Your task to perform on an android device: open app "Firefox Browser" (install if not already installed) Image 0: 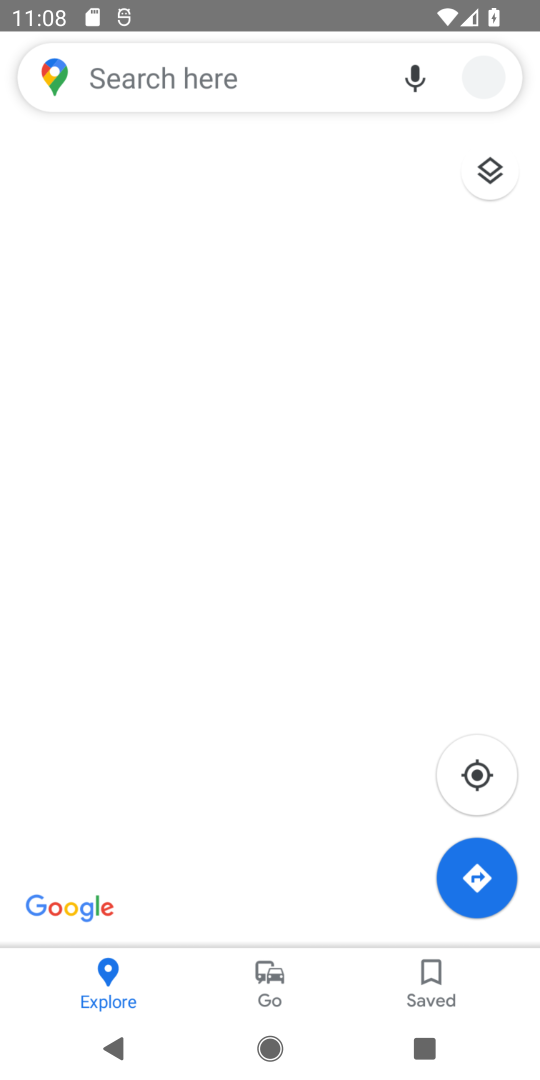
Step 0: press home button
Your task to perform on an android device: open app "Firefox Browser" (install if not already installed) Image 1: 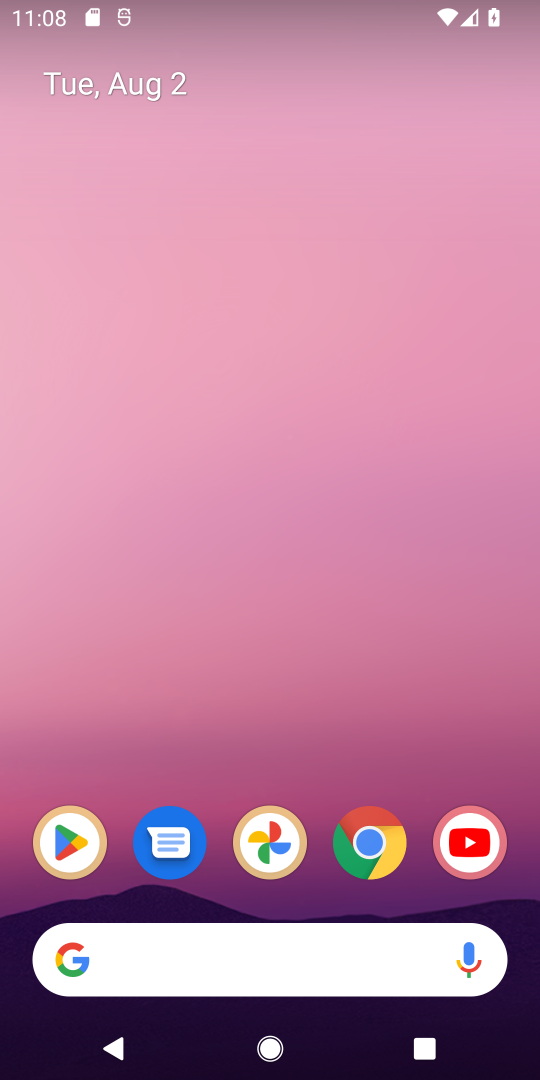
Step 1: click (80, 850)
Your task to perform on an android device: open app "Firefox Browser" (install if not already installed) Image 2: 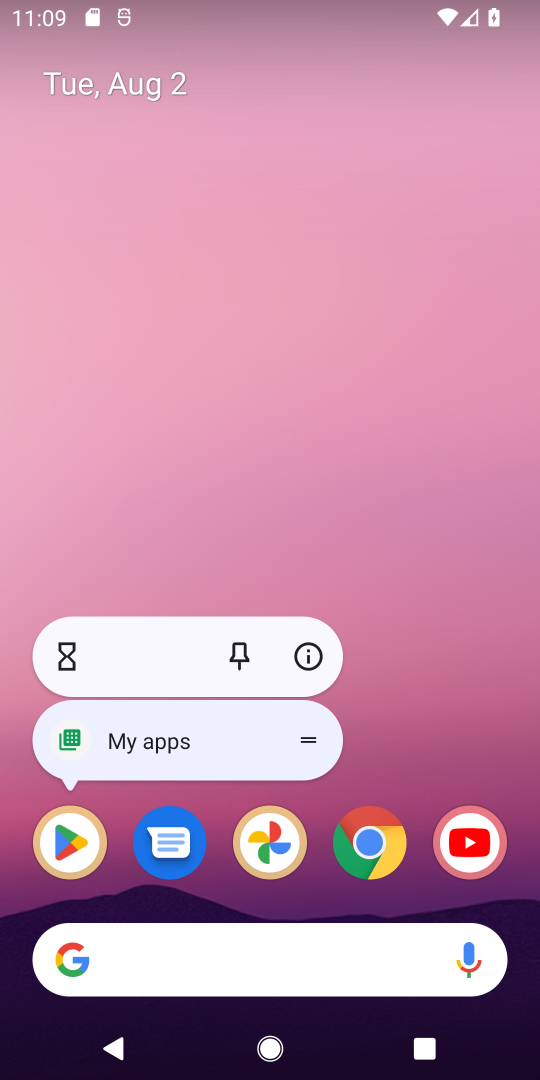
Step 2: click (64, 812)
Your task to perform on an android device: open app "Firefox Browser" (install if not already installed) Image 3: 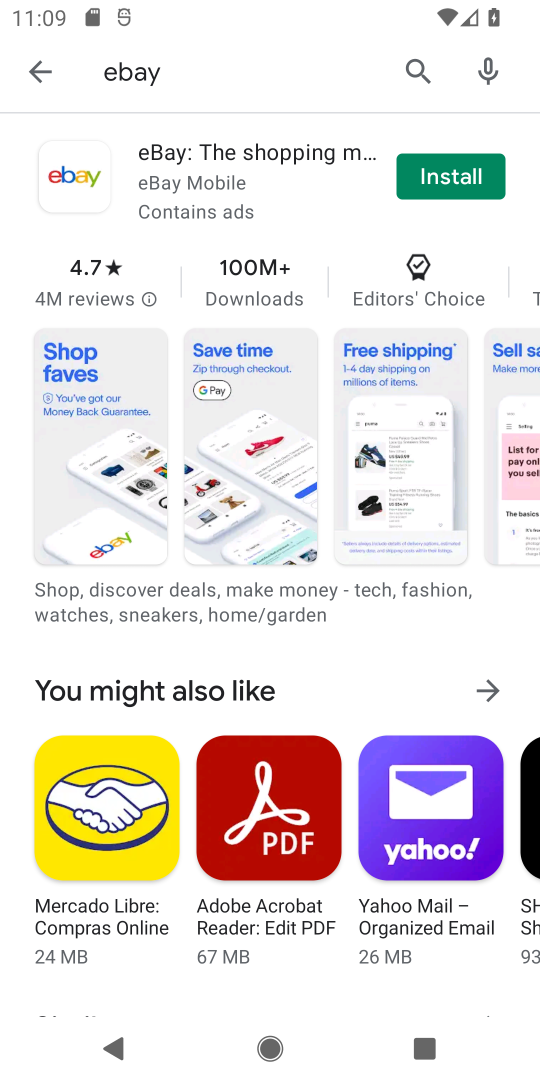
Step 3: click (432, 80)
Your task to perform on an android device: open app "Firefox Browser" (install if not already installed) Image 4: 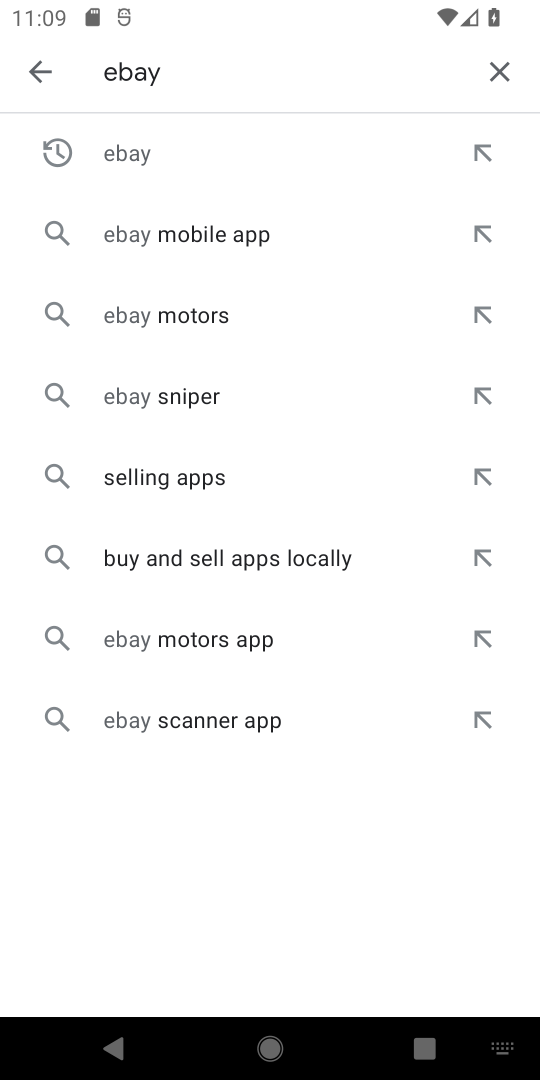
Step 4: click (490, 77)
Your task to perform on an android device: open app "Firefox Browser" (install if not already installed) Image 5: 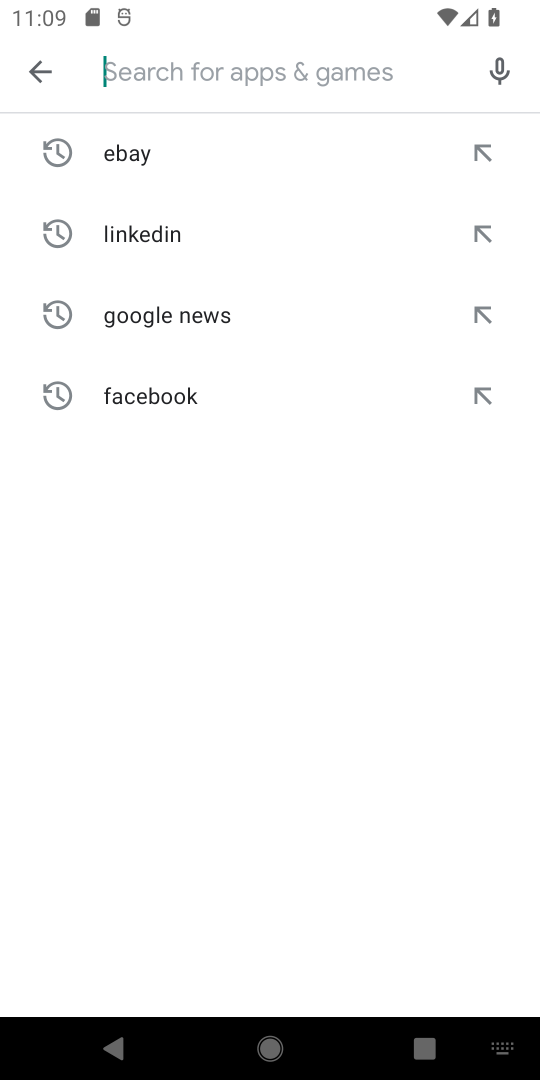
Step 5: type "Firefox Browser"
Your task to perform on an android device: open app "Firefox Browser" (install if not already installed) Image 6: 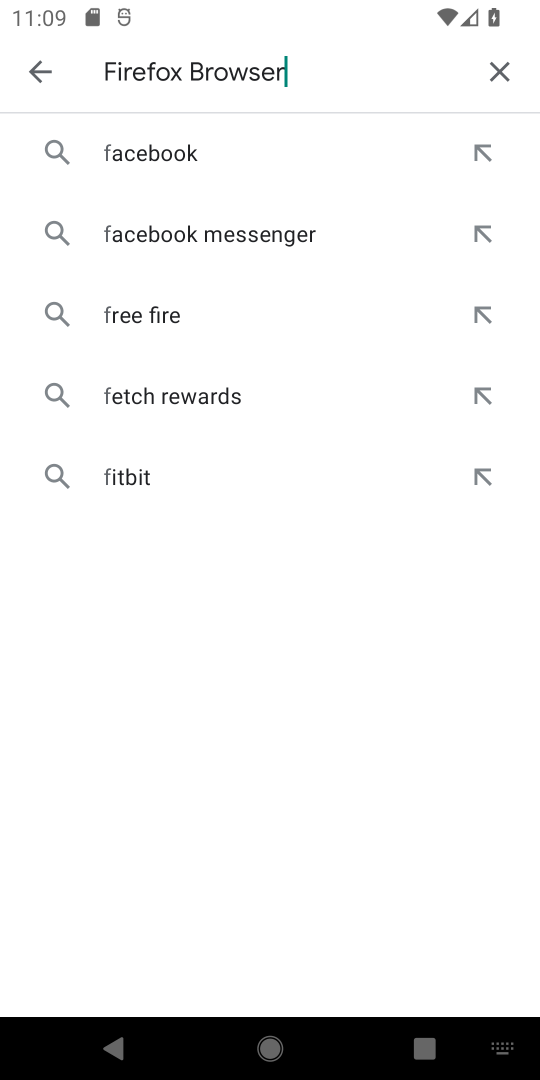
Step 6: type ""
Your task to perform on an android device: open app "Firefox Browser" (install if not already installed) Image 7: 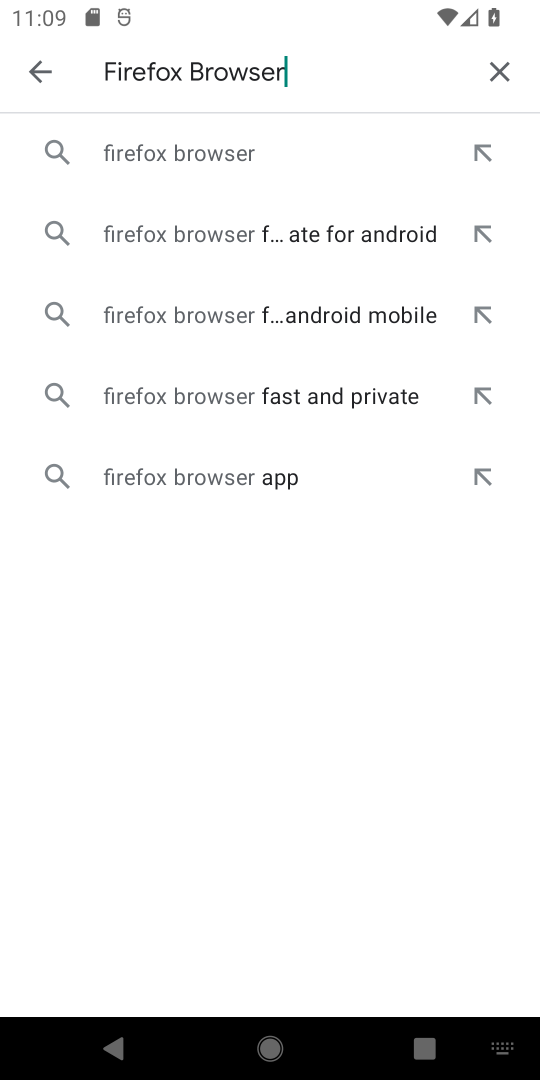
Step 7: click (114, 155)
Your task to perform on an android device: open app "Firefox Browser" (install if not already installed) Image 8: 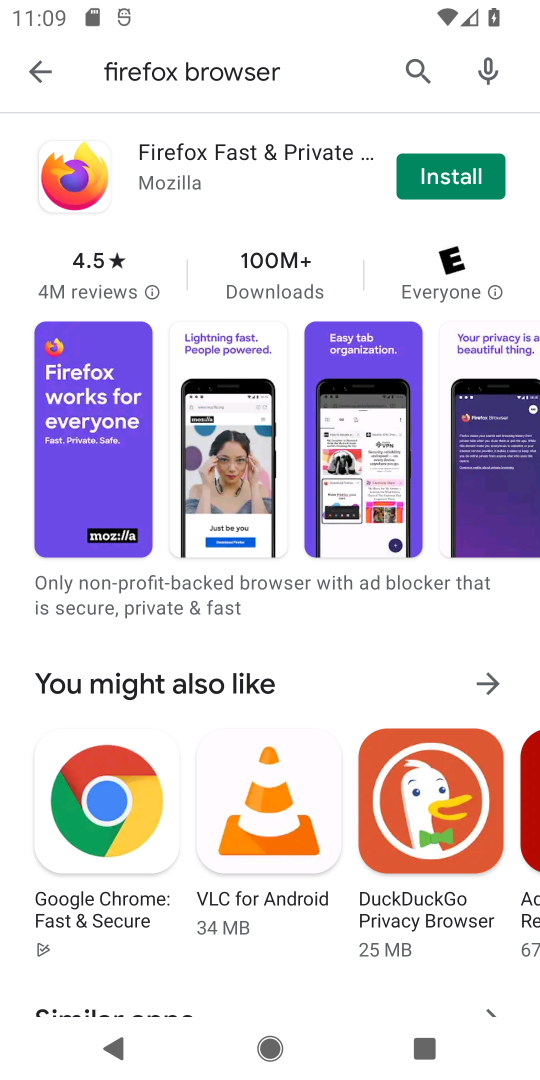
Step 8: click (476, 187)
Your task to perform on an android device: open app "Firefox Browser" (install if not already installed) Image 9: 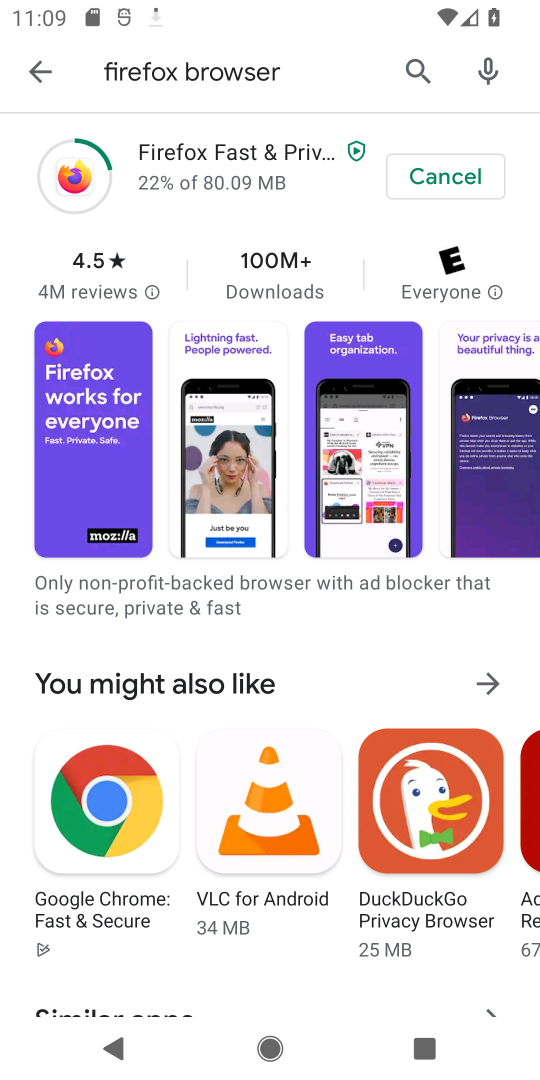
Step 9: click (305, 148)
Your task to perform on an android device: open app "Firefox Browser" (install if not already installed) Image 10: 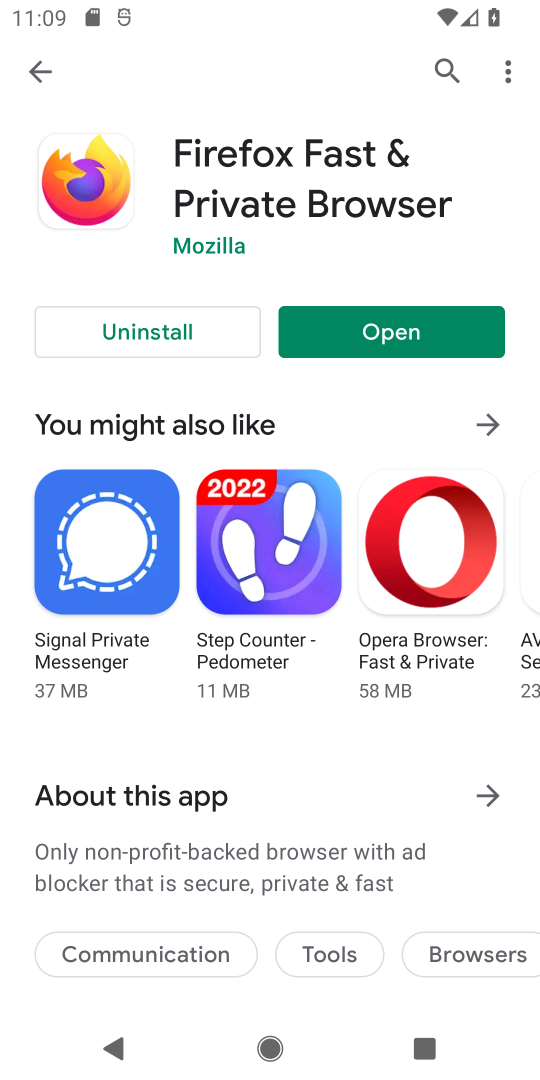
Step 10: click (408, 358)
Your task to perform on an android device: open app "Firefox Browser" (install if not already installed) Image 11: 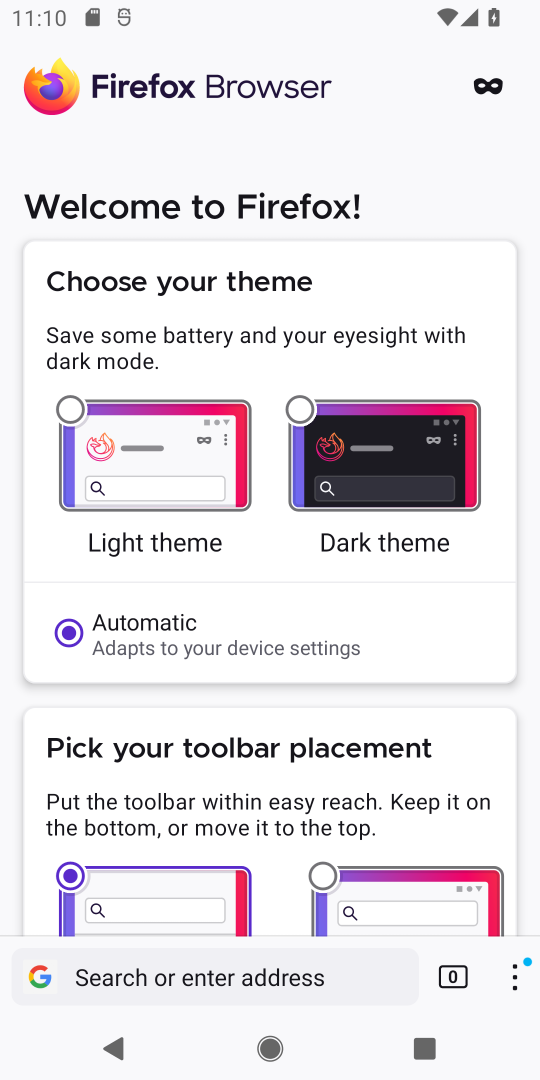
Step 11: drag from (306, 136) to (347, 1067)
Your task to perform on an android device: open app "Firefox Browser" (install if not already installed) Image 12: 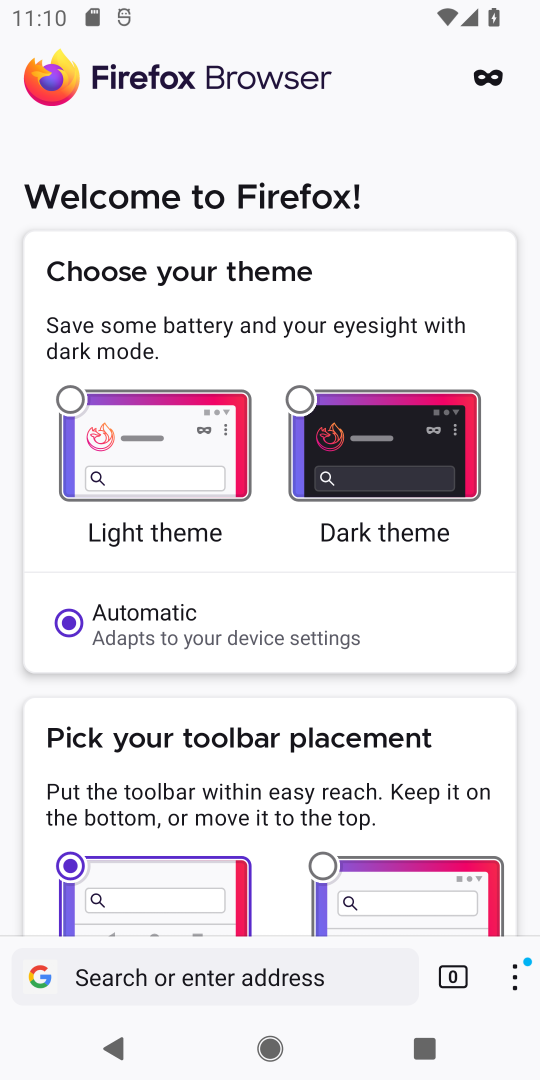
Step 12: press back button
Your task to perform on an android device: open app "Firefox Browser" (install if not already installed) Image 13: 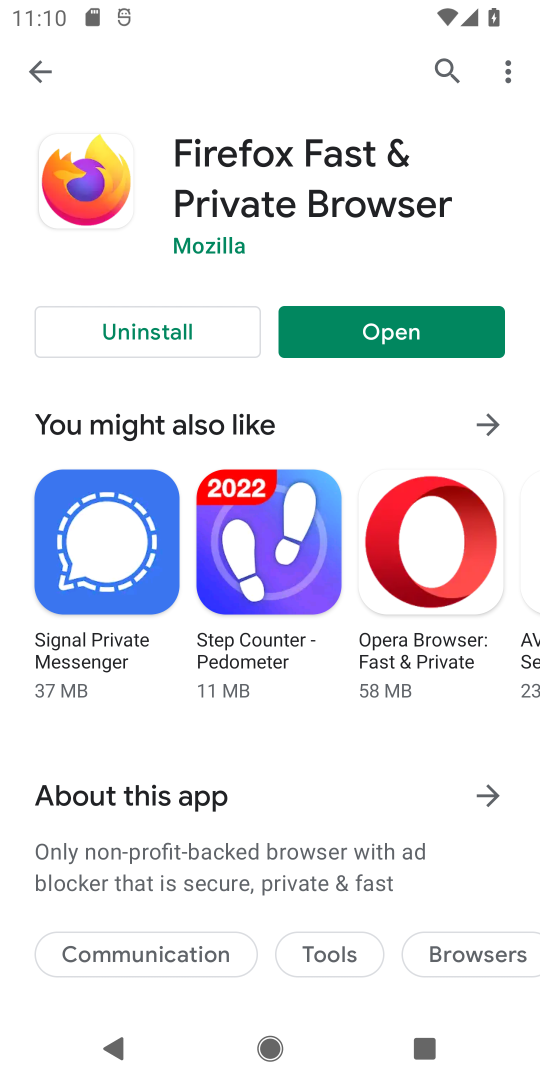
Step 13: click (315, 350)
Your task to perform on an android device: open app "Firefox Browser" (install if not already installed) Image 14: 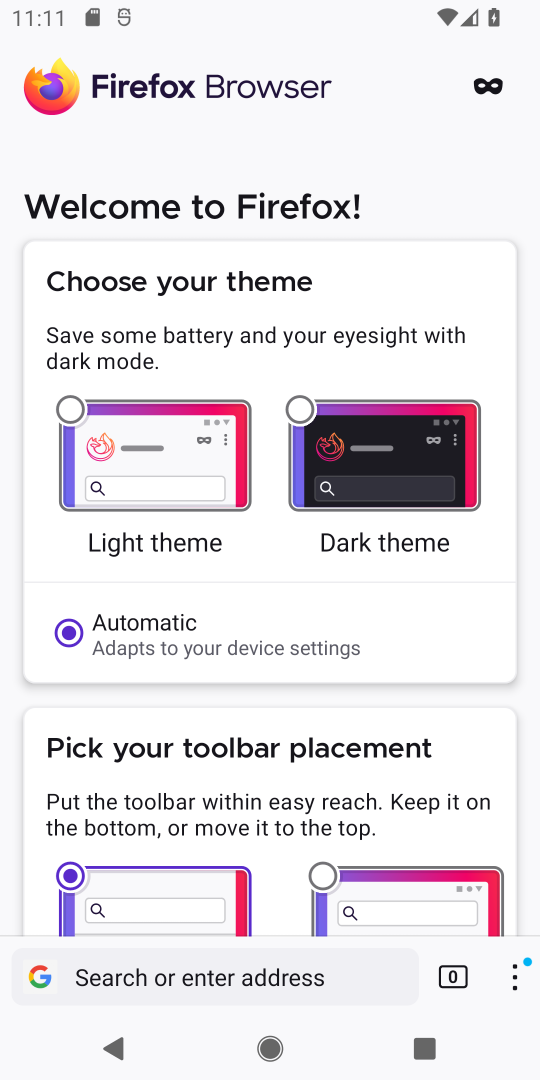
Step 14: task complete